Your task to perform on an android device: Open my contact list Image 0: 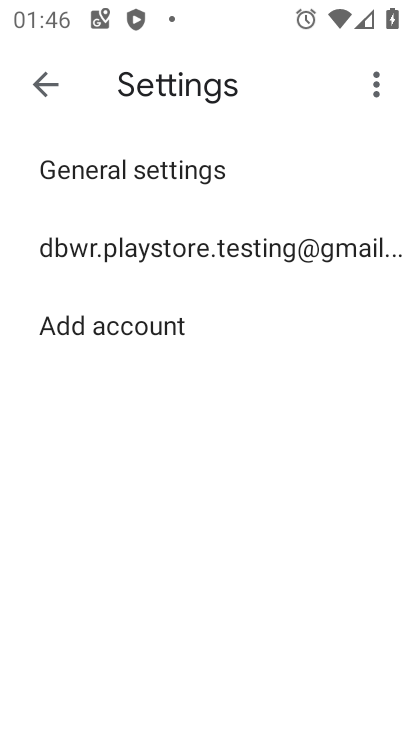
Step 0: press home button
Your task to perform on an android device: Open my contact list Image 1: 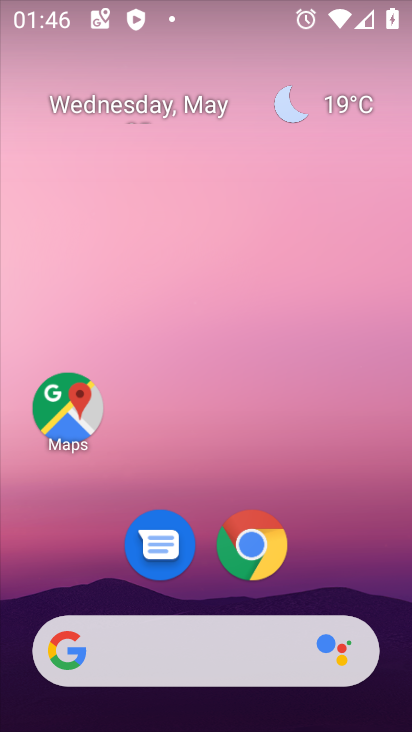
Step 1: drag from (298, 497) to (203, 105)
Your task to perform on an android device: Open my contact list Image 2: 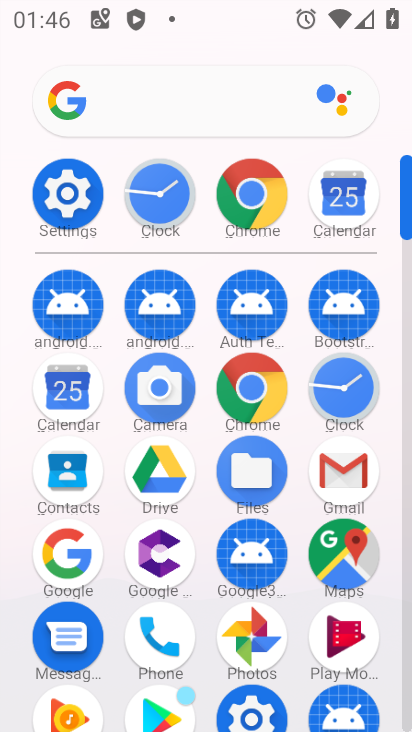
Step 2: click (68, 461)
Your task to perform on an android device: Open my contact list Image 3: 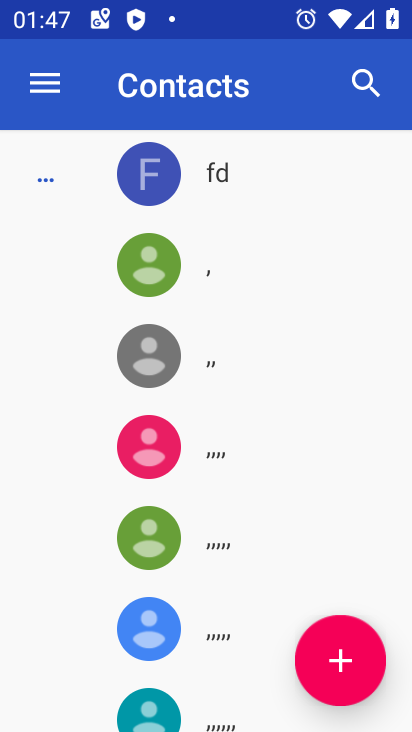
Step 3: task complete